Your task to perform on an android device: Open Android settings Image 0: 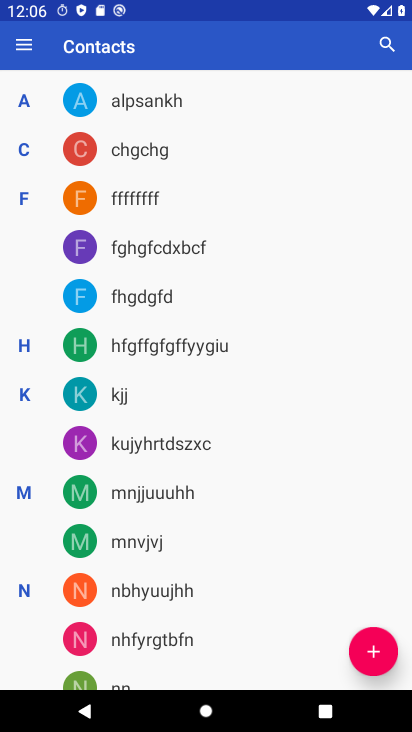
Step 0: press back button
Your task to perform on an android device: Open Android settings Image 1: 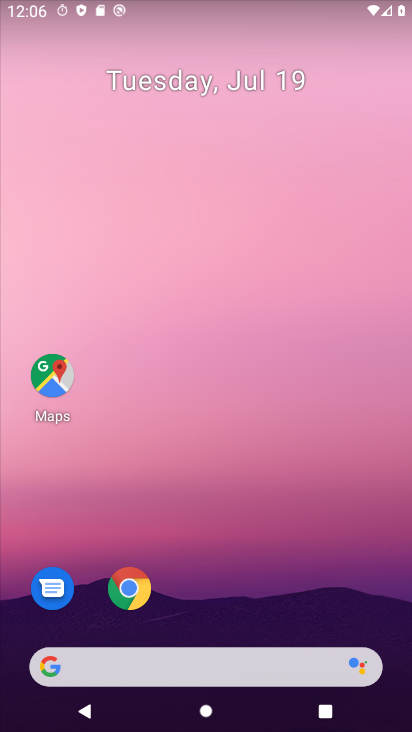
Step 1: click (285, 290)
Your task to perform on an android device: Open Android settings Image 2: 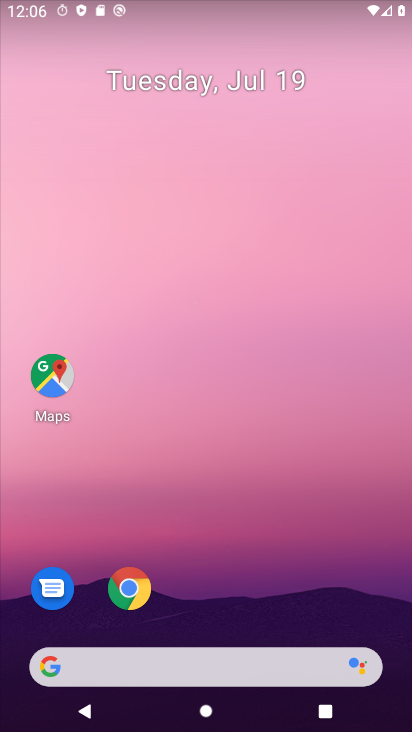
Step 2: drag from (249, 678) to (184, 226)
Your task to perform on an android device: Open Android settings Image 3: 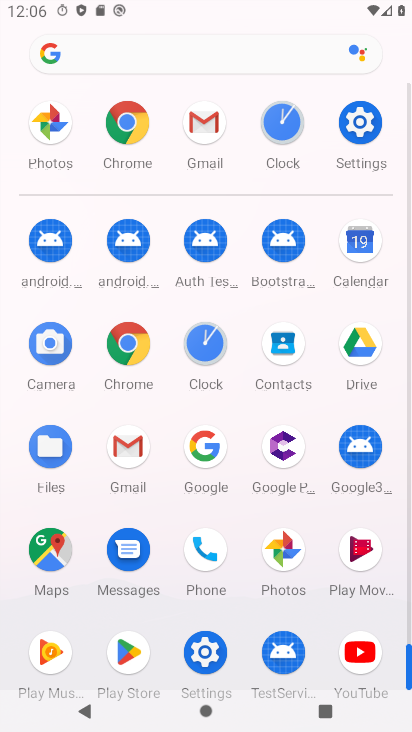
Step 3: drag from (233, 367) to (227, 320)
Your task to perform on an android device: Open Android settings Image 4: 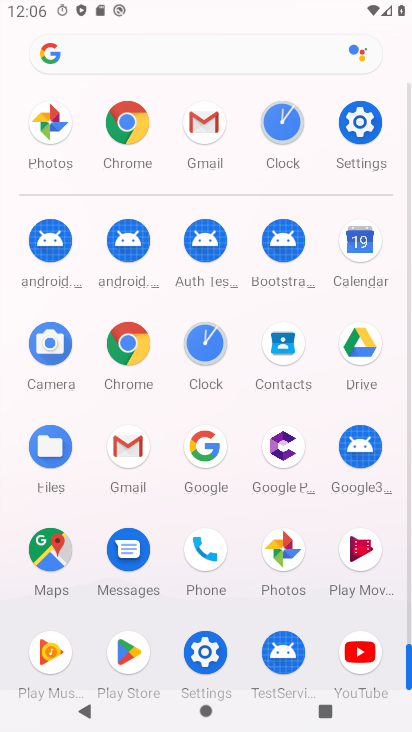
Step 4: click (364, 124)
Your task to perform on an android device: Open Android settings Image 5: 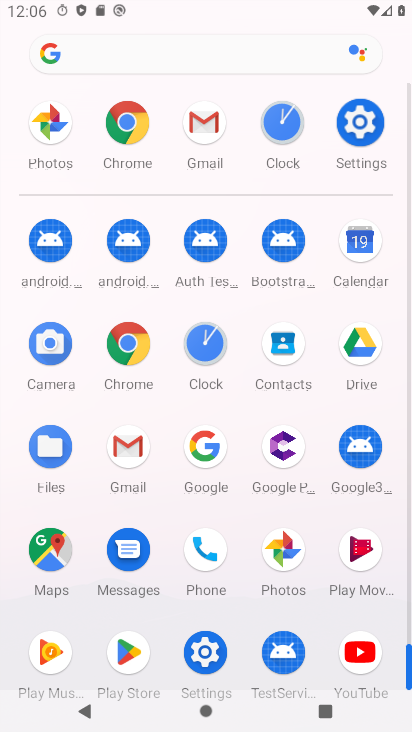
Step 5: click (361, 122)
Your task to perform on an android device: Open Android settings Image 6: 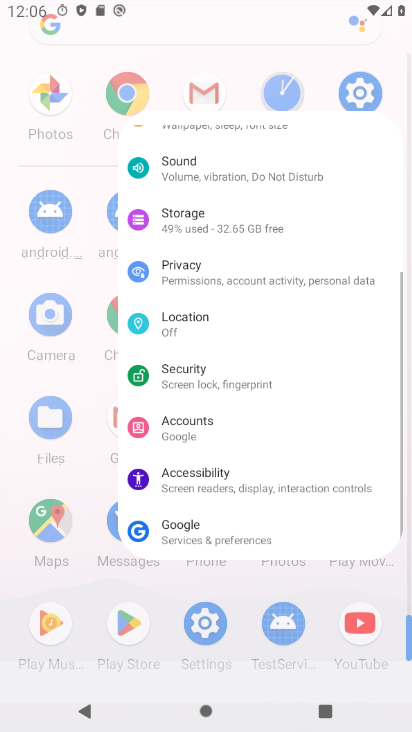
Step 6: click (361, 121)
Your task to perform on an android device: Open Android settings Image 7: 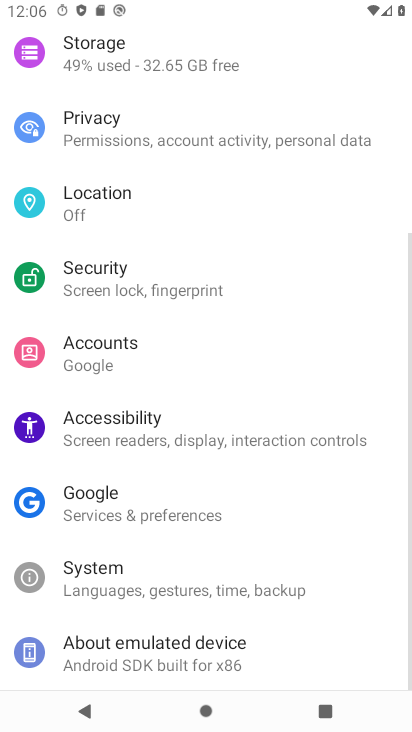
Step 7: click (361, 121)
Your task to perform on an android device: Open Android settings Image 8: 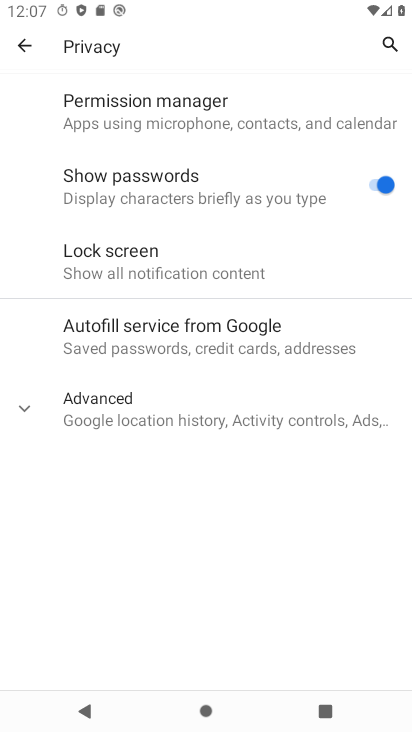
Step 8: click (20, 39)
Your task to perform on an android device: Open Android settings Image 9: 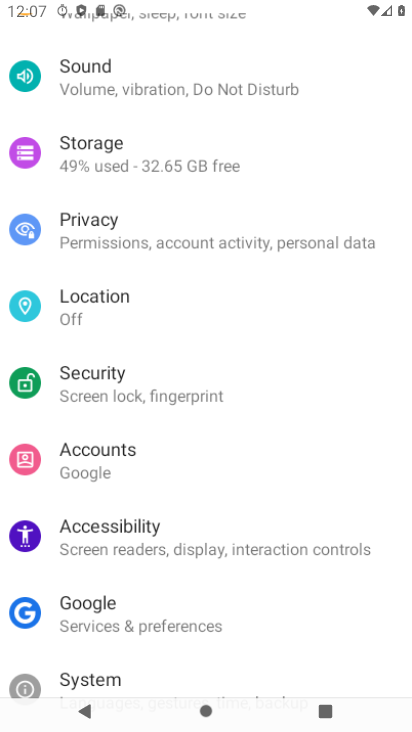
Step 9: click (22, 39)
Your task to perform on an android device: Open Android settings Image 10: 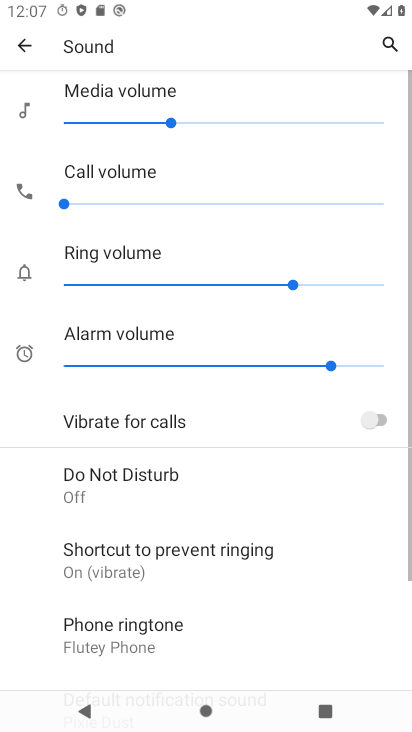
Step 10: drag from (152, 616) to (116, 246)
Your task to perform on an android device: Open Android settings Image 11: 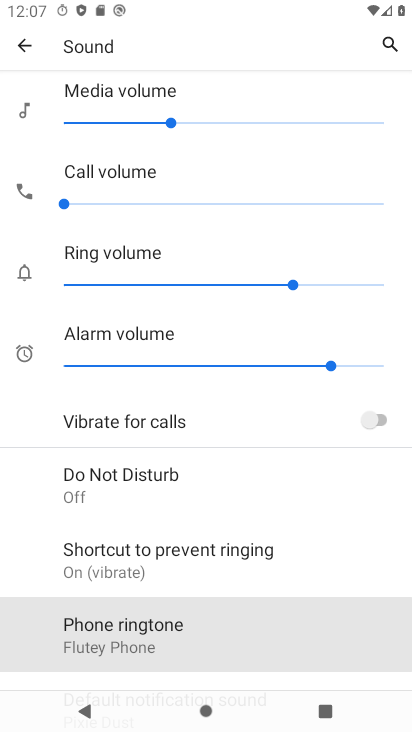
Step 11: drag from (189, 512) to (189, 173)
Your task to perform on an android device: Open Android settings Image 12: 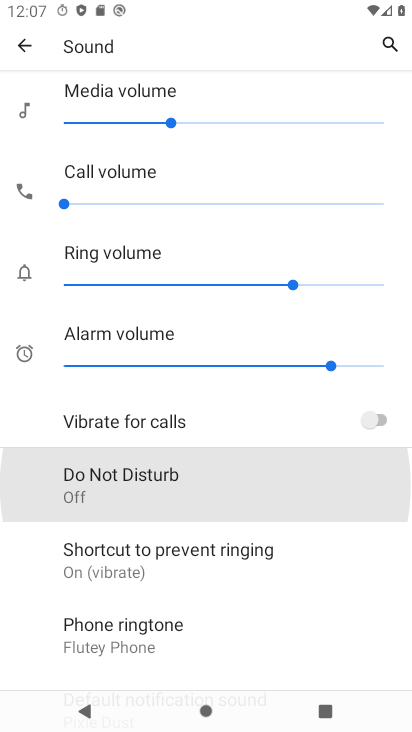
Step 12: drag from (157, 474) to (148, 173)
Your task to perform on an android device: Open Android settings Image 13: 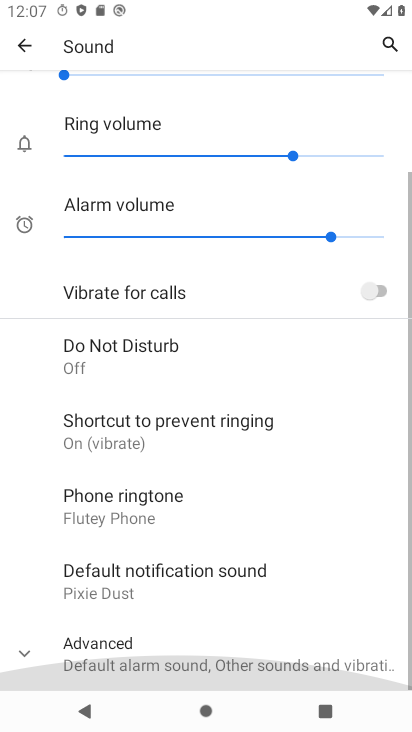
Step 13: drag from (154, 517) to (161, 254)
Your task to perform on an android device: Open Android settings Image 14: 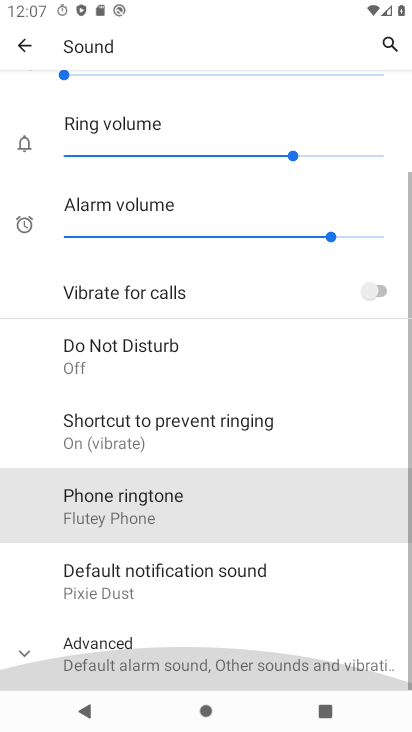
Step 14: drag from (161, 578) to (167, 254)
Your task to perform on an android device: Open Android settings Image 15: 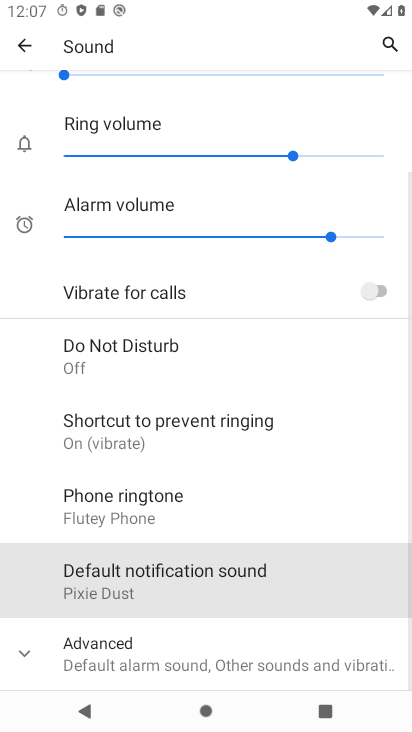
Step 15: drag from (155, 564) to (175, 266)
Your task to perform on an android device: Open Android settings Image 16: 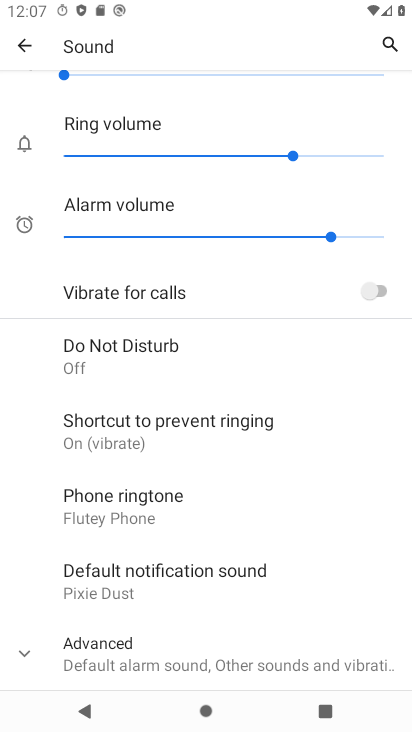
Step 16: click (25, 38)
Your task to perform on an android device: Open Android settings Image 17: 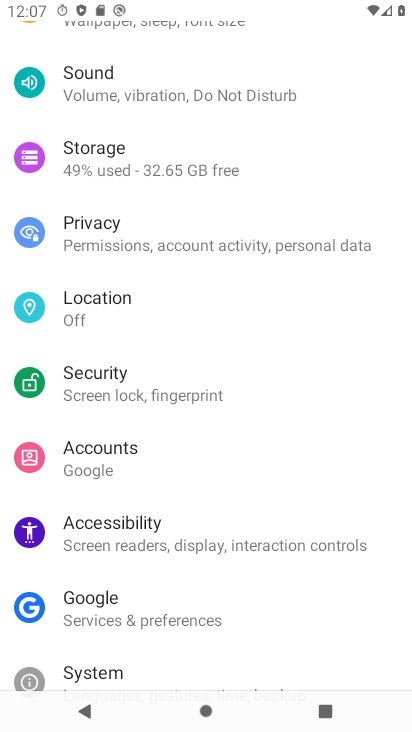
Step 17: drag from (128, 525) to (122, 253)
Your task to perform on an android device: Open Android settings Image 18: 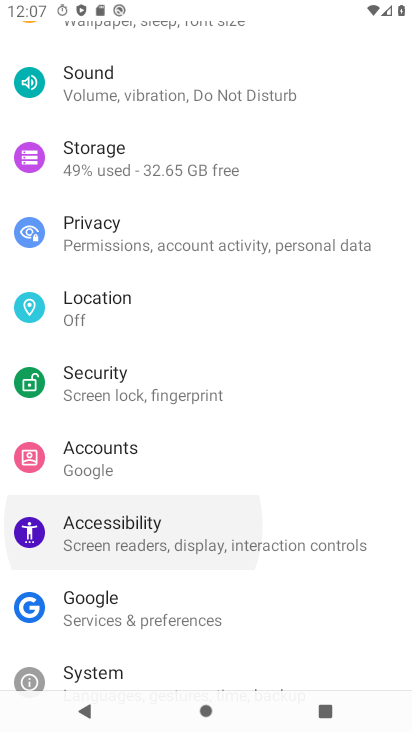
Step 18: drag from (117, 536) to (135, 306)
Your task to perform on an android device: Open Android settings Image 19: 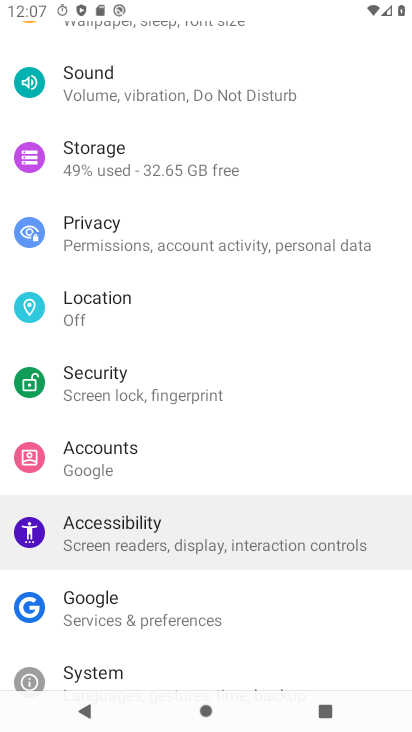
Step 19: drag from (144, 565) to (173, 244)
Your task to perform on an android device: Open Android settings Image 20: 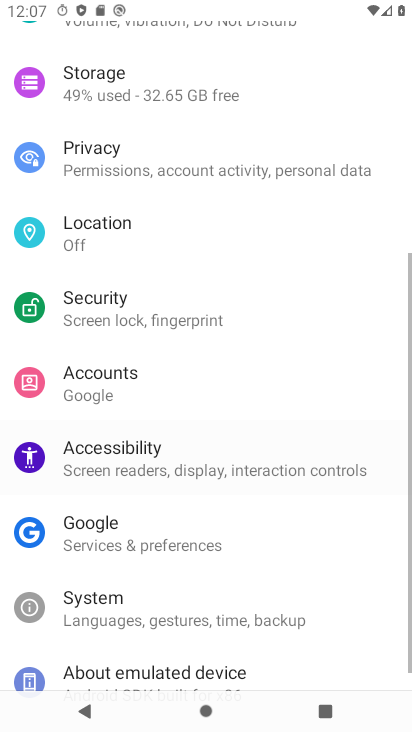
Step 20: drag from (166, 440) to (166, 391)
Your task to perform on an android device: Open Android settings Image 21: 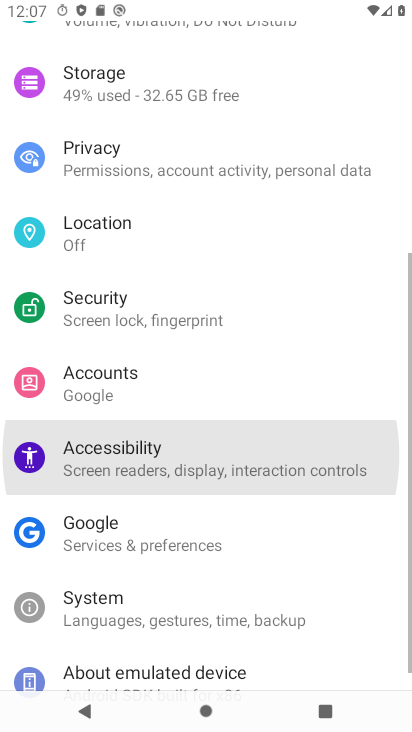
Step 21: drag from (129, 544) to (143, 263)
Your task to perform on an android device: Open Android settings Image 22: 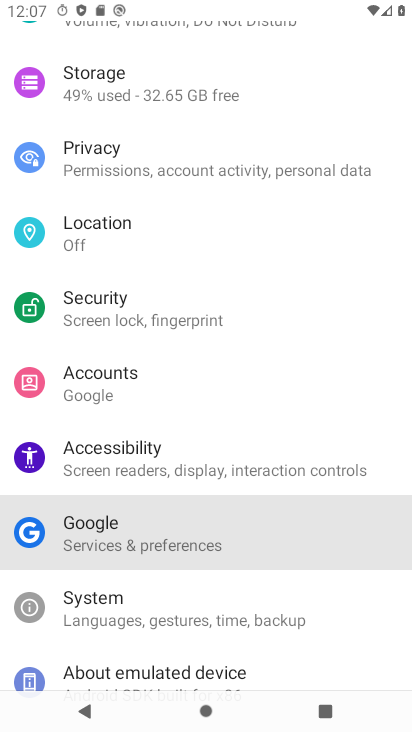
Step 22: drag from (191, 438) to (191, 167)
Your task to perform on an android device: Open Android settings Image 23: 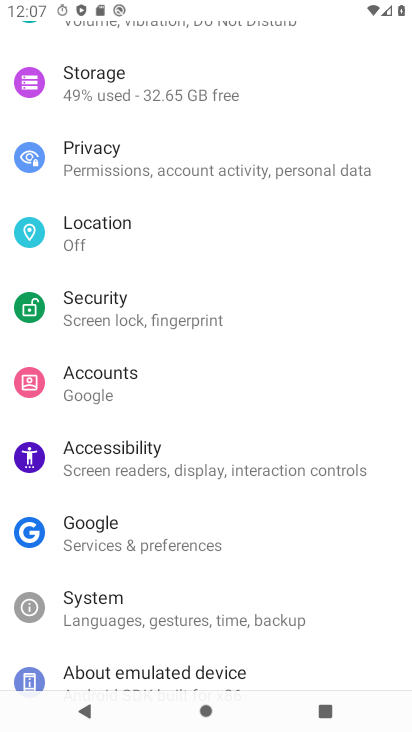
Step 23: click (192, 197)
Your task to perform on an android device: Open Android settings Image 24: 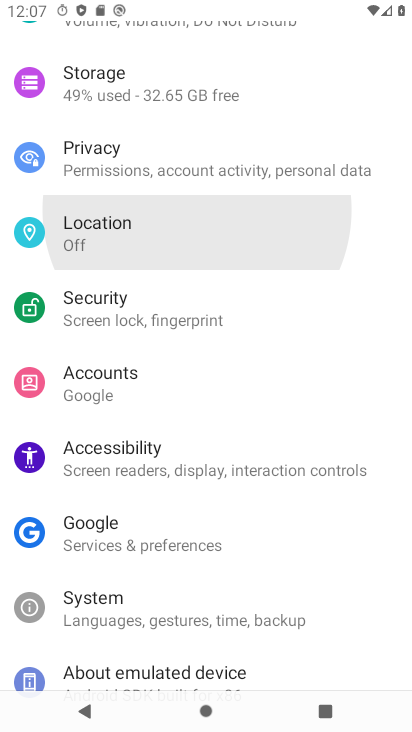
Step 24: drag from (192, 485) to (173, 210)
Your task to perform on an android device: Open Android settings Image 25: 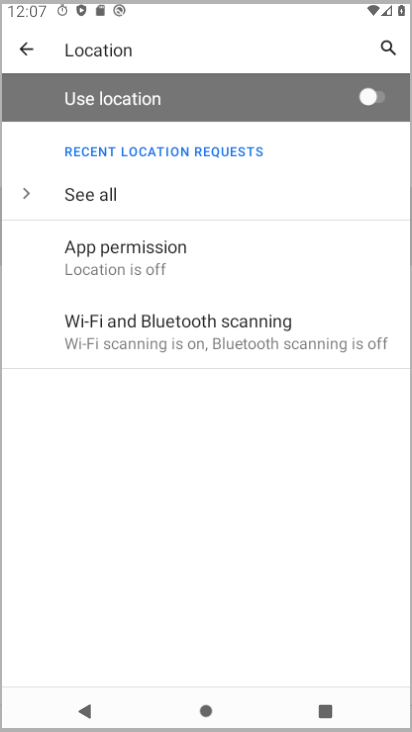
Step 25: drag from (144, 624) to (141, 243)
Your task to perform on an android device: Open Android settings Image 26: 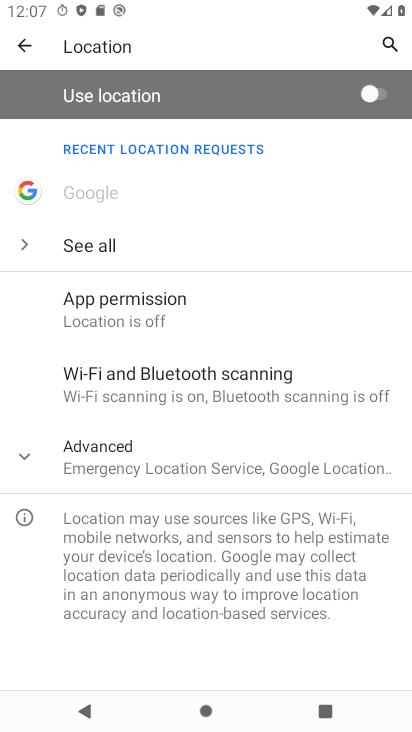
Step 26: drag from (140, 617) to (177, 343)
Your task to perform on an android device: Open Android settings Image 27: 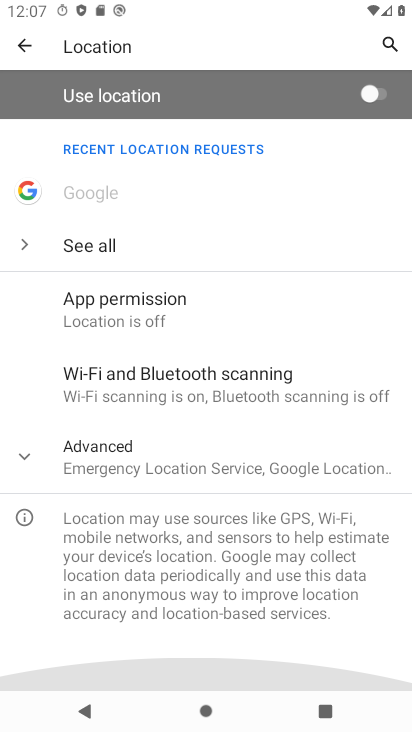
Step 27: drag from (218, 612) to (167, 262)
Your task to perform on an android device: Open Android settings Image 28: 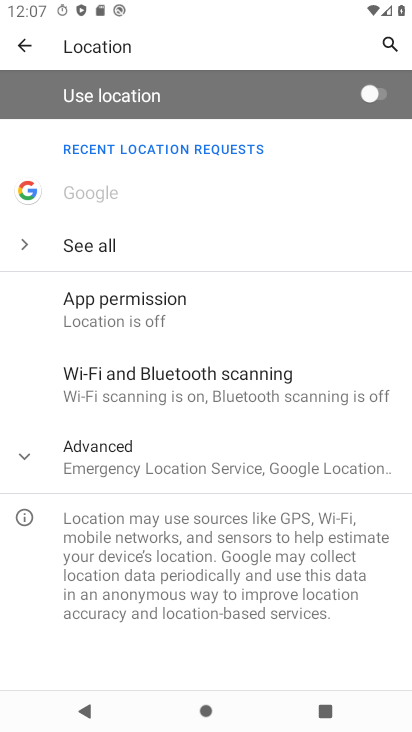
Step 28: click (19, 45)
Your task to perform on an android device: Open Android settings Image 29: 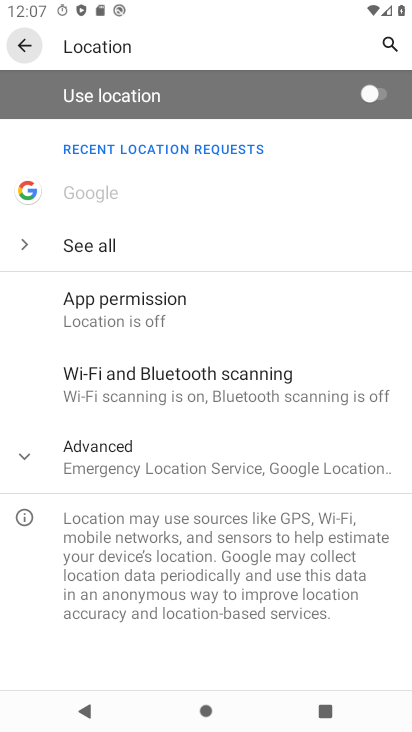
Step 29: click (17, 41)
Your task to perform on an android device: Open Android settings Image 30: 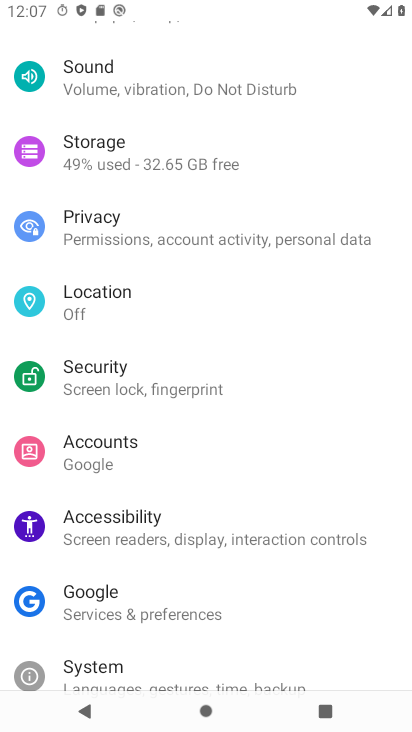
Step 30: task complete